Your task to perform on an android device: Open Yahoo.com Image 0: 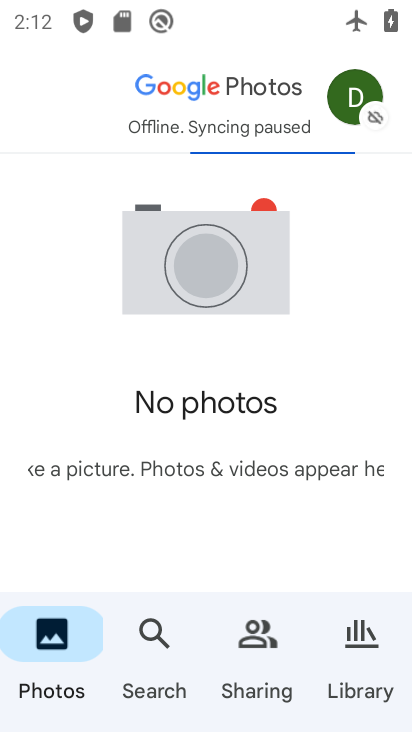
Step 0: press home button
Your task to perform on an android device: Open Yahoo.com Image 1: 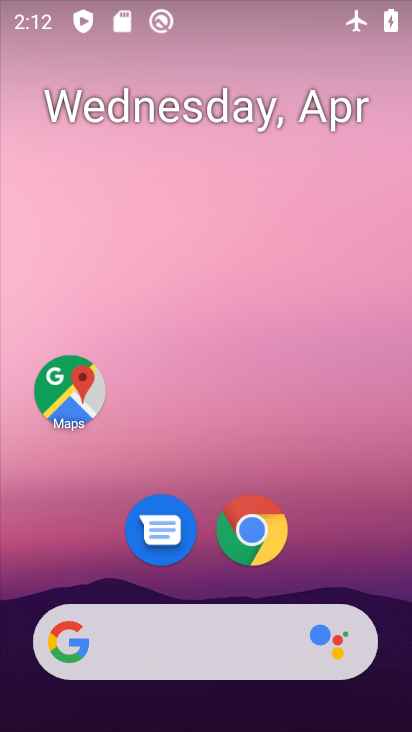
Step 1: click (259, 528)
Your task to perform on an android device: Open Yahoo.com Image 2: 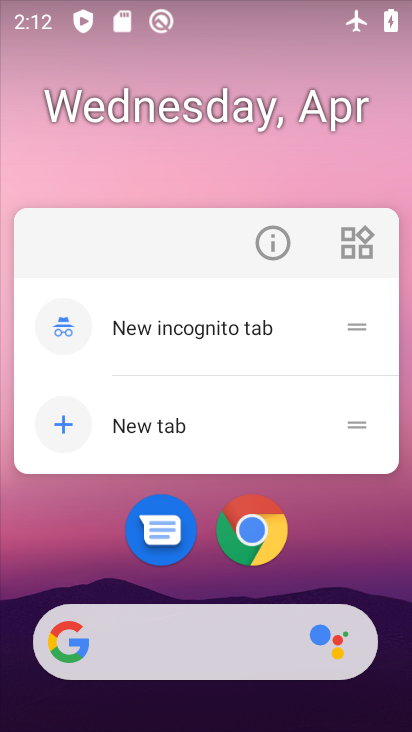
Step 2: click (251, 533)
Your task to perform on an android device: Open Yahoo.com Image 3: 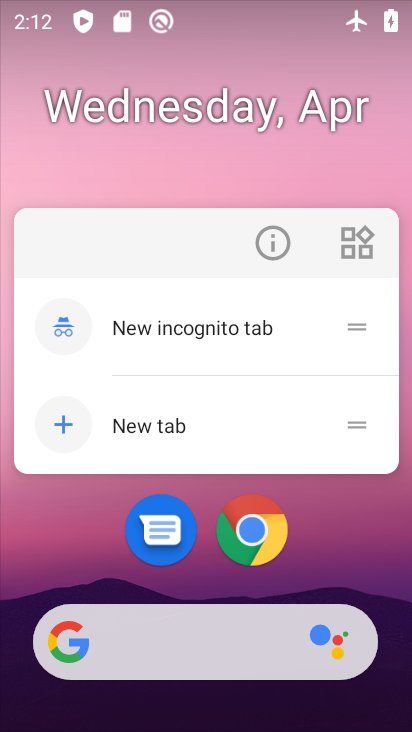
Step 3: click (251, 533)
Your task to perform on an android device: Open Yahoo.com Image 4: 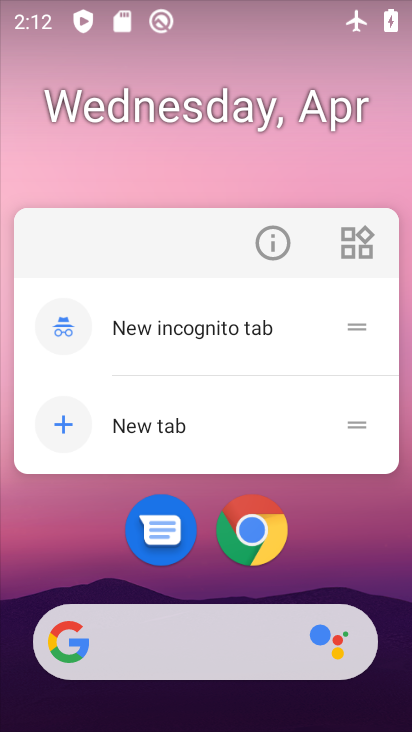
Step 4: click (251, 533)
Your task to perform on an android device: Open Yahoo.com Image 5: 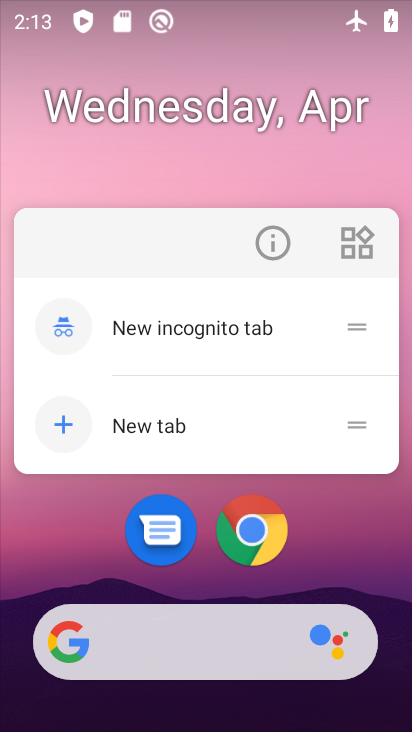
Step 5: click (251, 533)
Your task to perform on an android device: Open Yahoo.com Image 6: 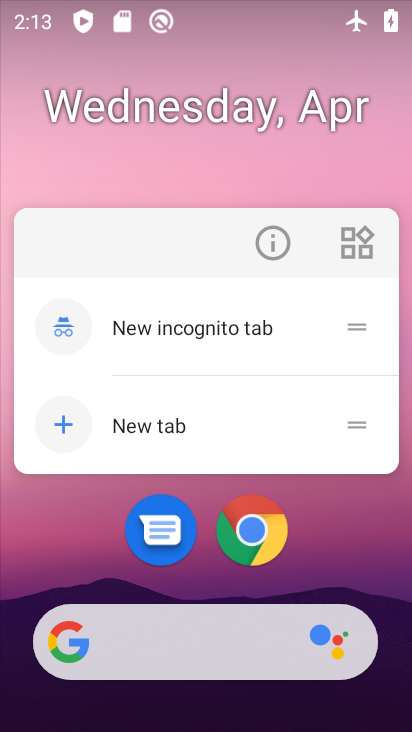
Step 6: drag from (330, 539) to (334, 52)
Your task to perform on an android device: Open Yahoo.com Image 7: 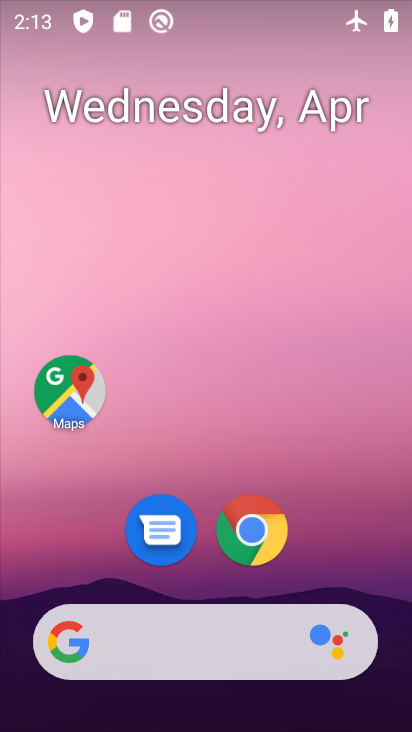
Step 7: drag from (339, 431) to (334, 48)
Your task to perform on an android device: Open Yahoo.com Image 8: 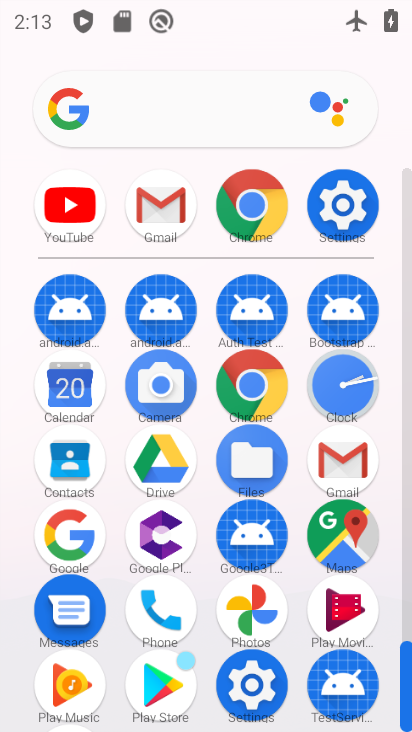
Step 8: click (247, 397)
Your task to perform on an android device: Open Yahoo.com Image 9: 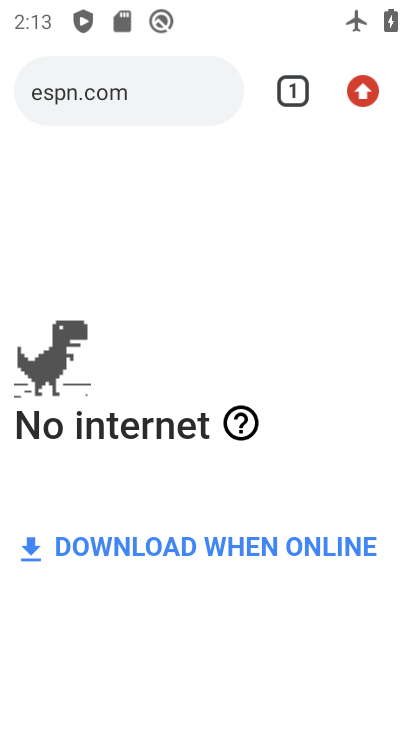
Step 9: click (189, 97)
Your task to perform on an android device: Open Yahoo.com Image 10: 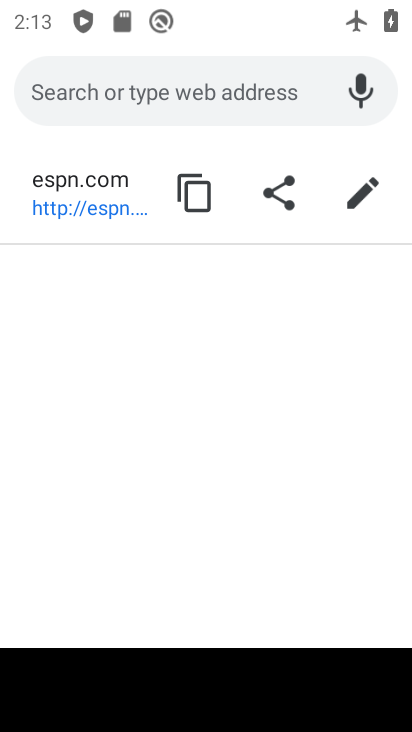
Step 10: type "yahoo.com"
Your task to perform on an android device: Open Yahoo.com Image 11: 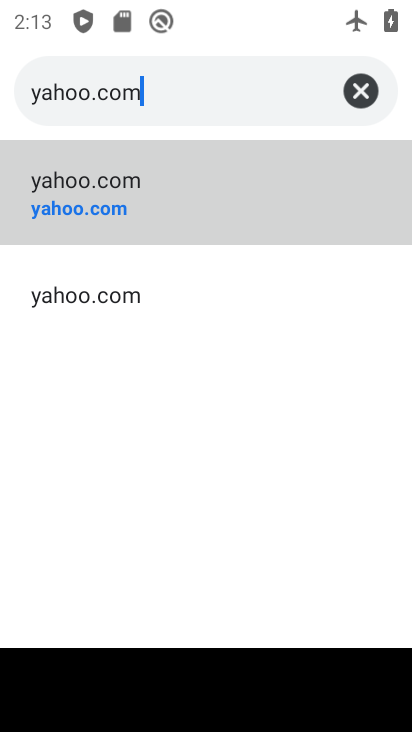
Step 11: click (80, 203)
Your task to perform on an android device: Open Yahoo.com Image 12: 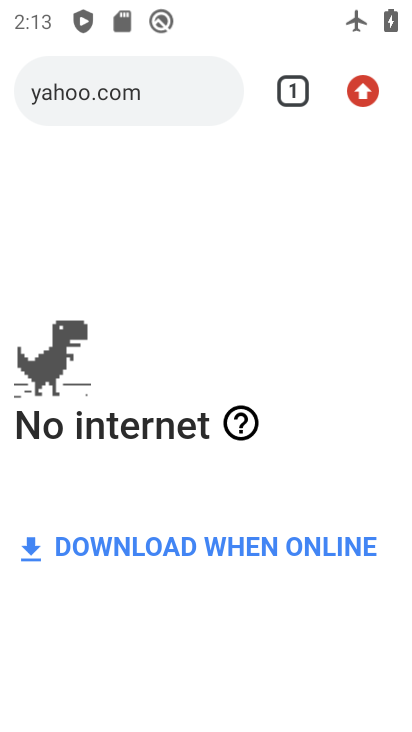
Step 12: task complete